Your task to perform on an android device: turn pop-ups off in chrome Image 0: 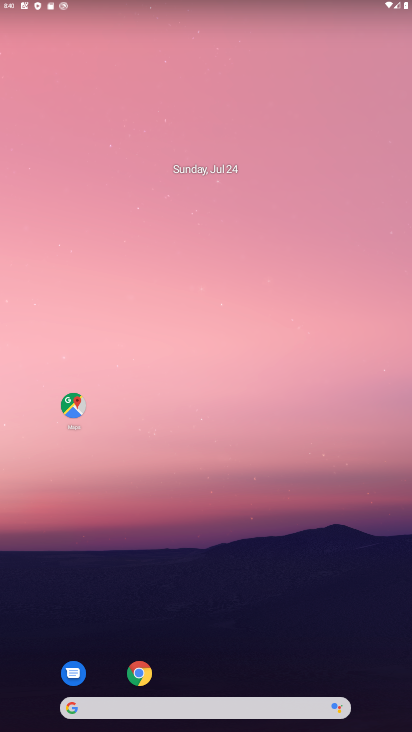
Step 0: click (140, 673)
Your task to perform on an android device: turn pop-ups off in chrome Image 1: 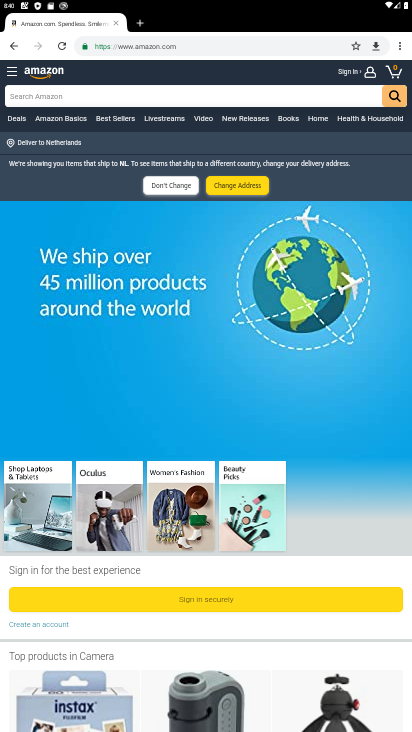
Step 1: click (401, 41)
Your task to perform on an android device: turn pop-ups off in chrome Image 2: 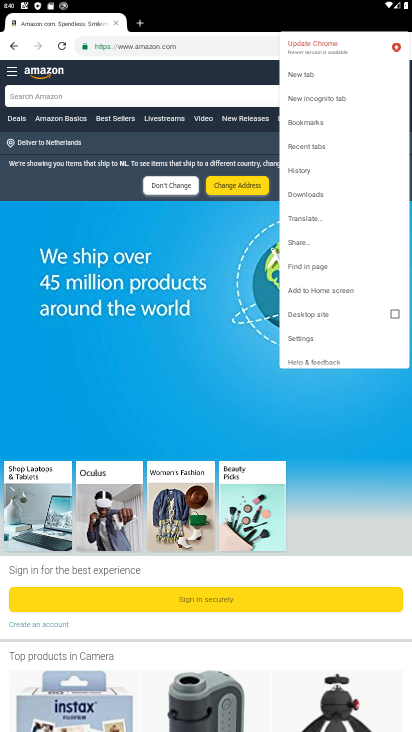
Step 2: click (291, 333)
Your task to perform on an android device: turn pop-ups off in chrome Image 3: 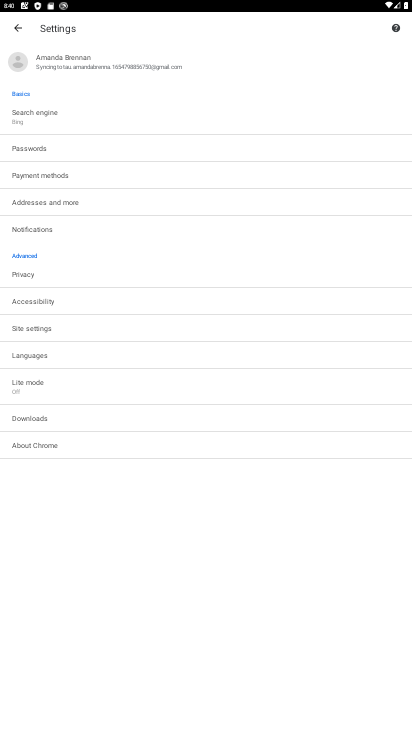
Step 3: click (32, 339)
Your task to perform on an android device: turn pop-ups off in chrome Image 4: 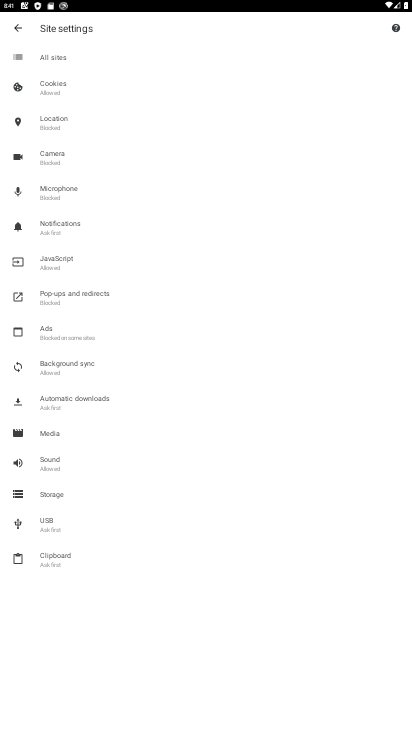
Step 4: click (56, 305)
Your task to perform on an android device: turn pop-ups off in chrome Image 5: 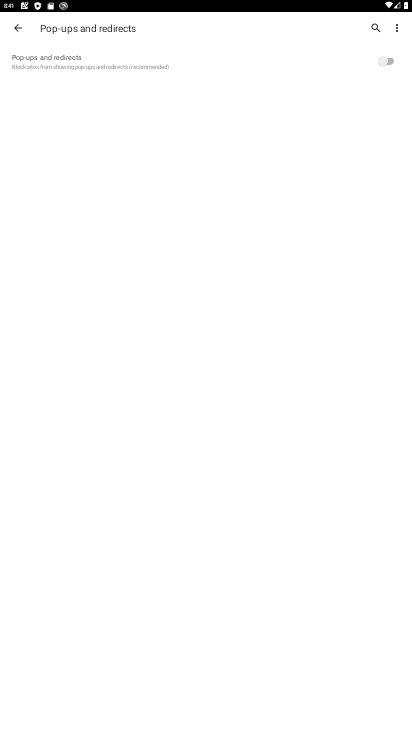
Step 5: task complete